Your task to perform on an android device: check data usage Image 0: 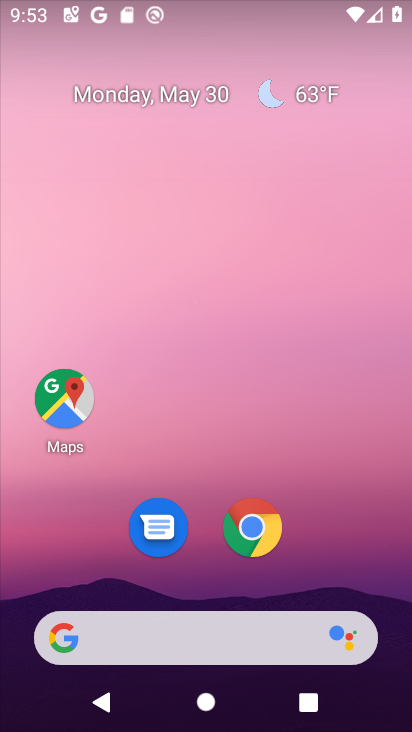
Step 0: drag from (310, 541) to (292, 191)
Your task to perform on an android device: check data usage Image 1: 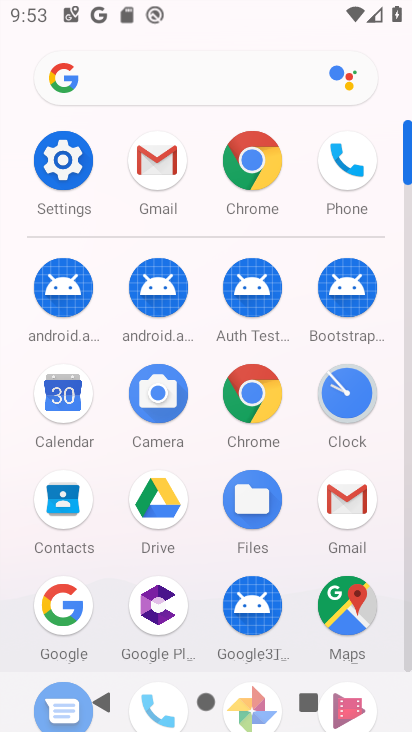
Step 1: click (58, 146)
Your task to perform on an android device: check data usage Image 2: 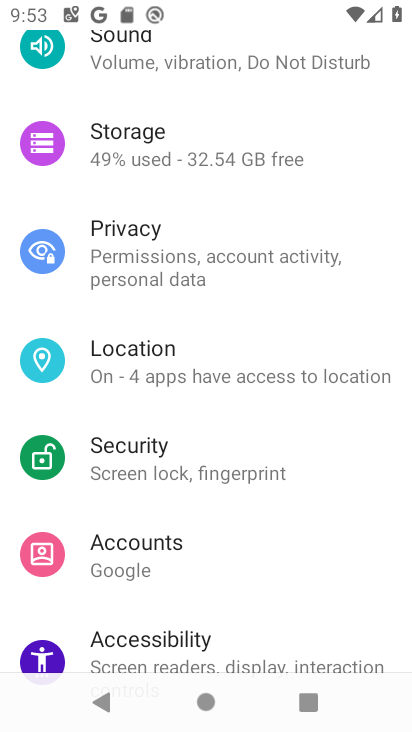
Step 2: drag from (204, 121) to (198, 587)
Your task to perform on an android device: check data usage Image 3: 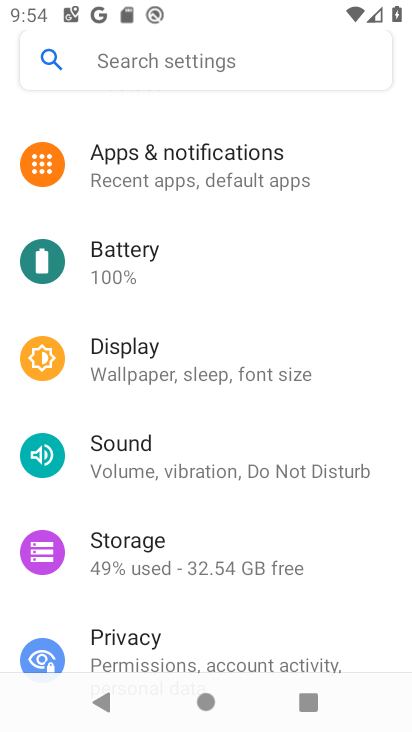
Step 3: drag from (75, 153) to (69, 622)
Your task to perform on an android device: check data usage Image 4: 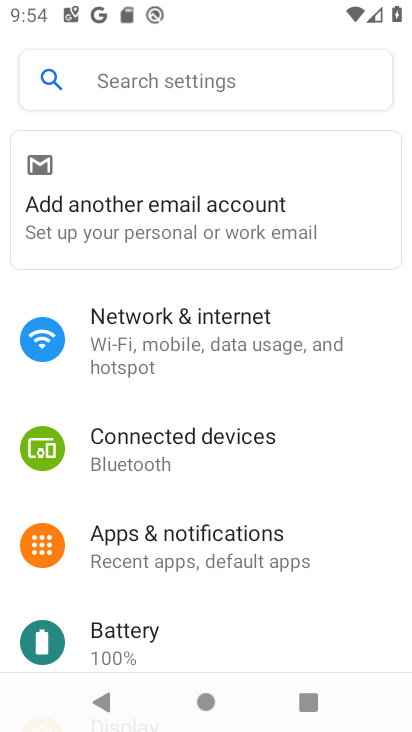
Step 4: click (173, 325)
Your task to perform on an android device: check data usage Image 5: 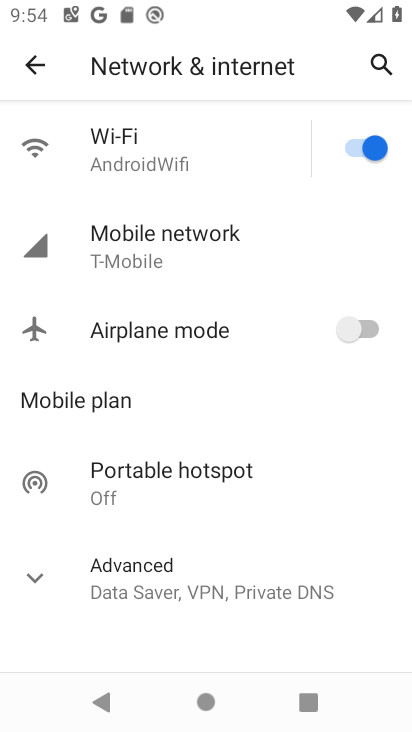
Step 5: click (190, 235)
Your task to perform on an android device: check data usage Image 6: 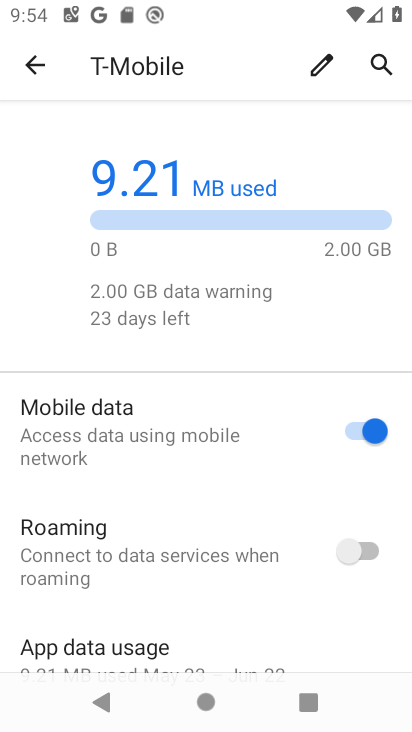
Step 6: task complete